Your task to perform on an android device: Open the web browser Image 0: 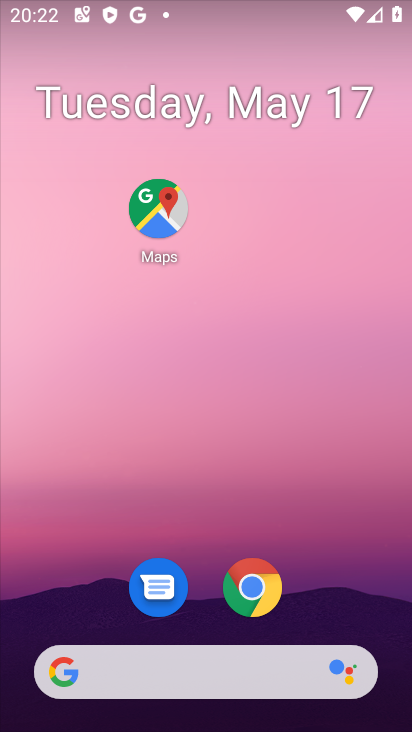
Step 0: press home button
Your task to perform on an android device: Open the web browser Image 1: 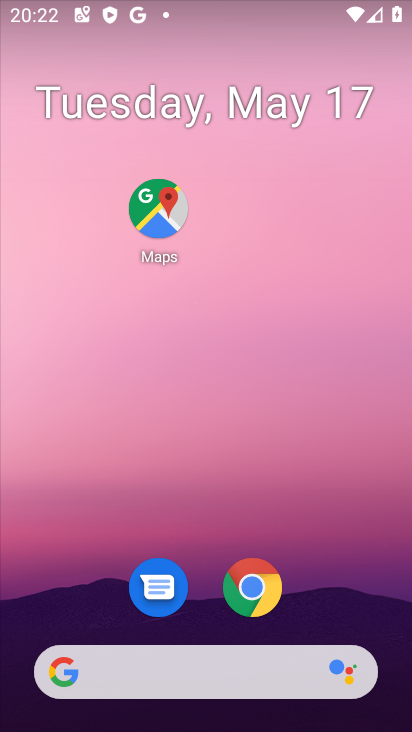
Step 1: drag from (18, 626) to (258, 162)
Your task to perform on an android device: Open the web browser Image 2: 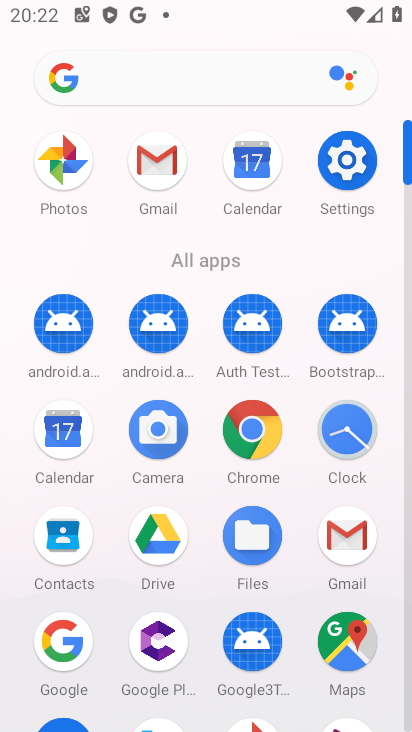
Step 2: drag from (34, 682) to (279, 199)
Your task to perform on an android device: Open the web browser Image 3: 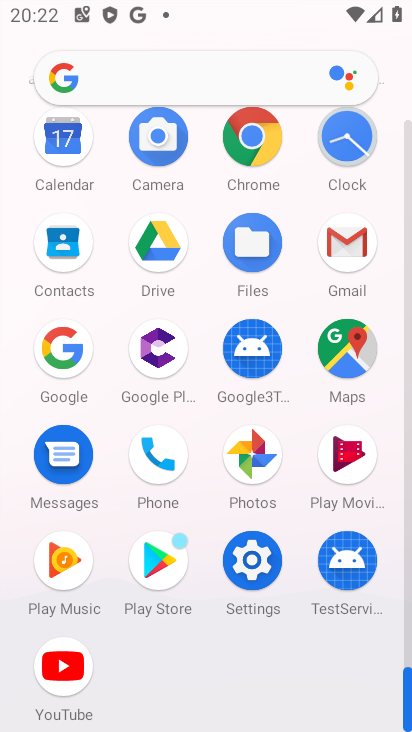
Step 3: click (251, 559)
Your task to perform on an android device: Open the web browser Image 4: 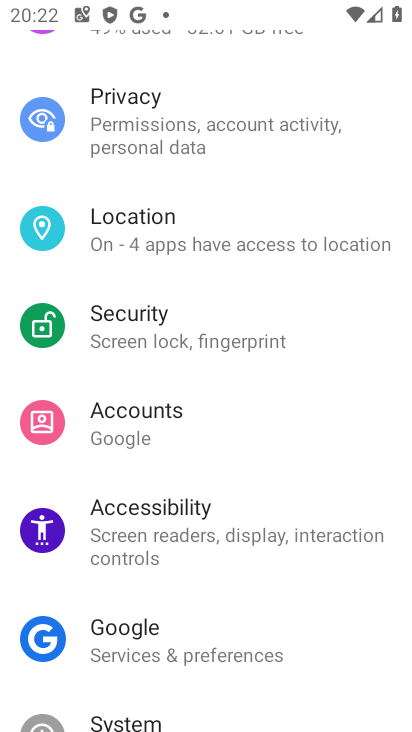
Step 4: task complete